Your task to perform on an android device: turn off smart reply in the gmail app Image 0: 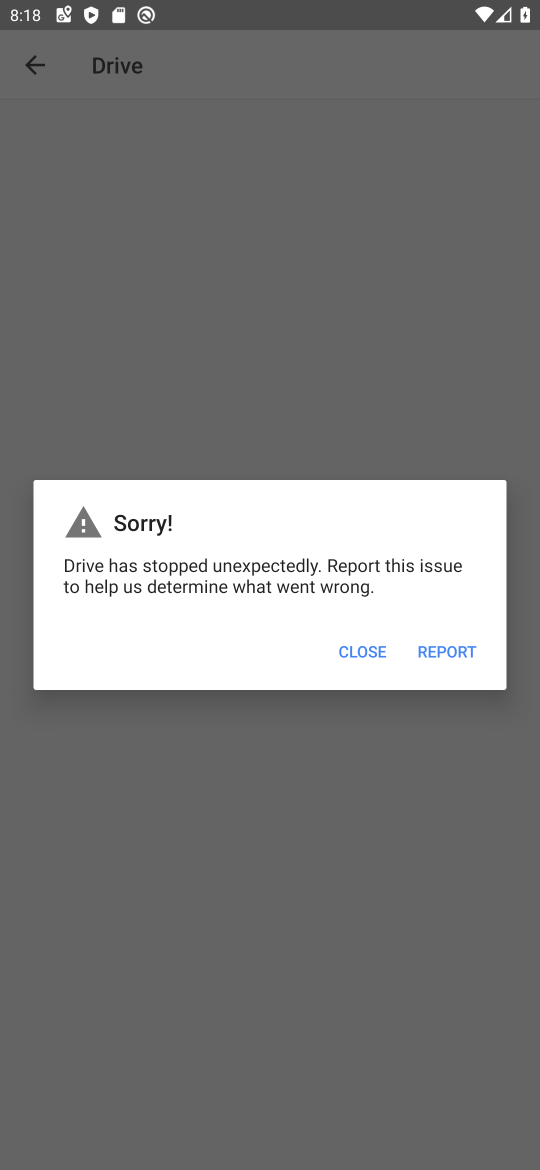
Step 0: press home button
Your task to perform on an android device: turn off smart reply in the gmail app Image 1: 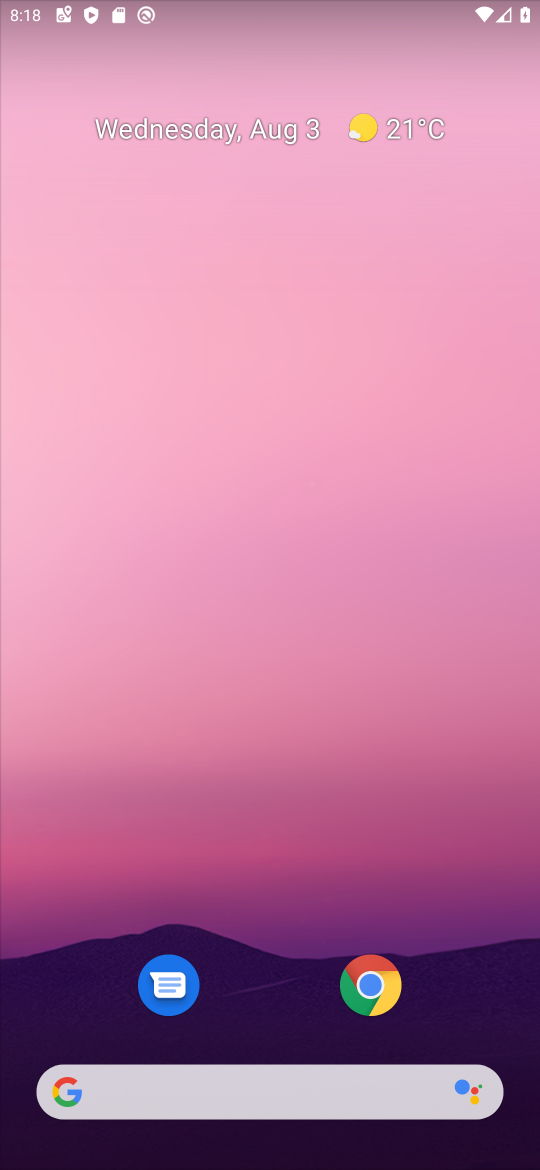
Step 1: drag from (270, 970) to (235, 269)
Your task to perform on an android device: turn off smart reply in the gmail app Image 2: 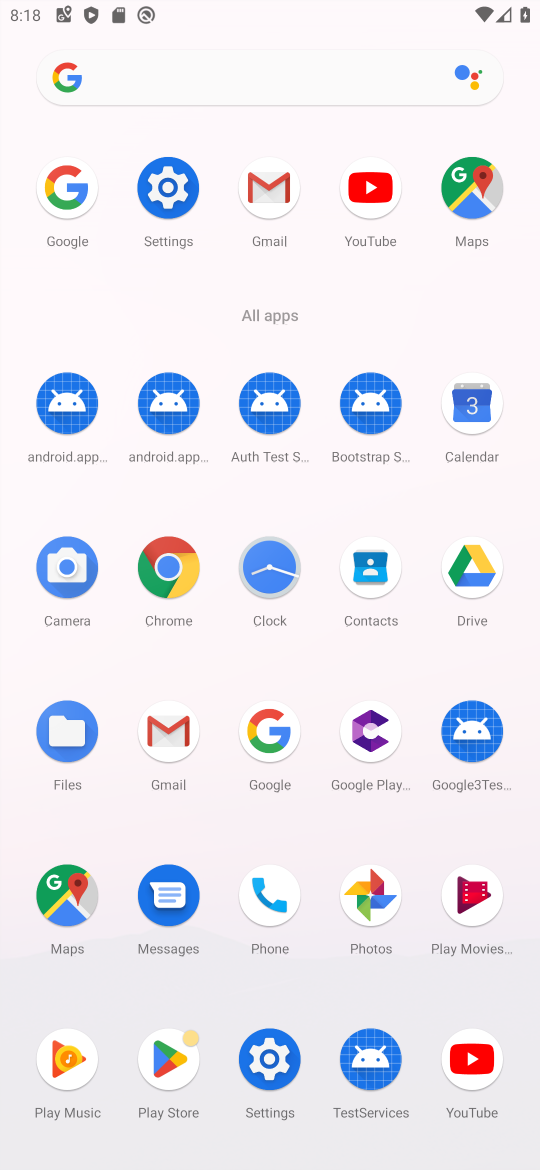
Step 2: click (263, 180)
Your task to perform on an android device: turn off smart reply in the gmail app Image 3: 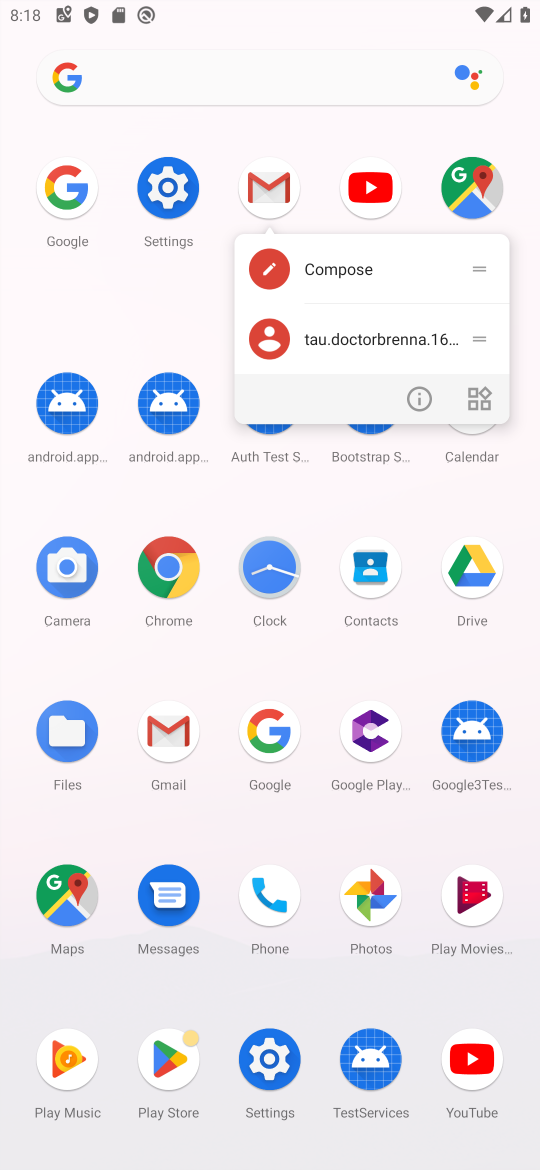
Step 3: click (275, 176)
Your task to perform on an android device: turn off smart reply in the gmail app Image 4: 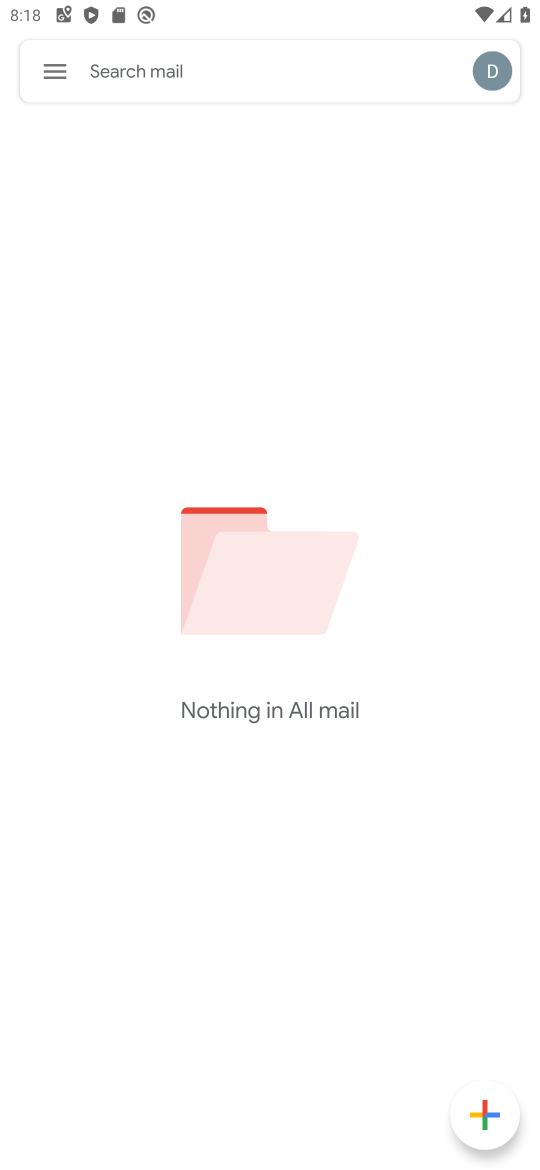
Step 4: click (57, 81)
Your task to perform on an android device: turn off smart reply in the gmail app Image 5: 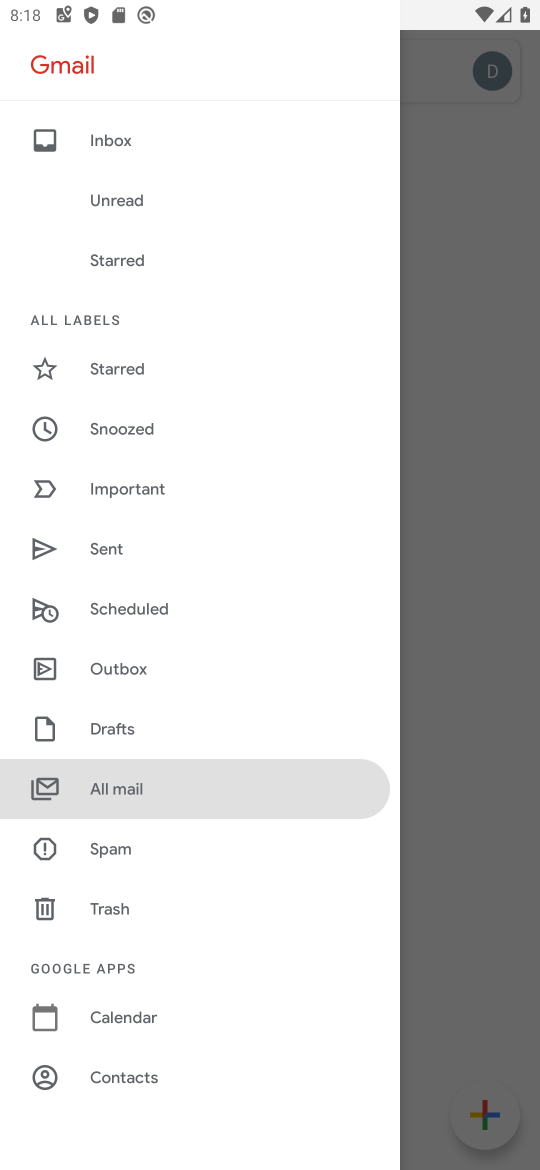
Step 5: drag from (151, 1050) to (246, 569)
Your task to perform on an android device: turn off smart reply in the gmail app Image 6: 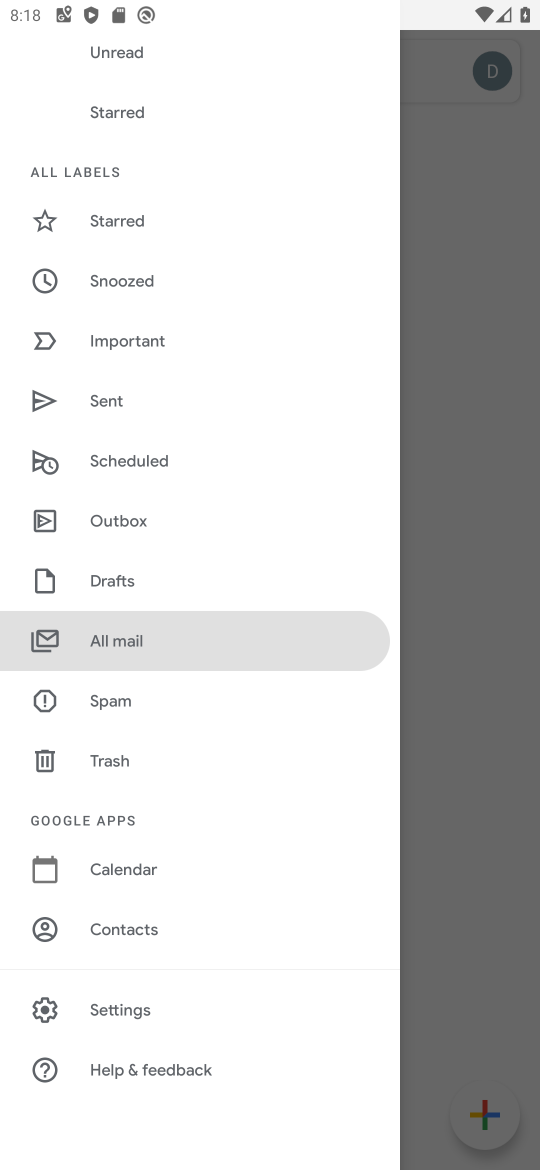
Step 6: click (130, 1017)
Your task to perform on an android device: turn off smart reply in the gmail app Image 7: 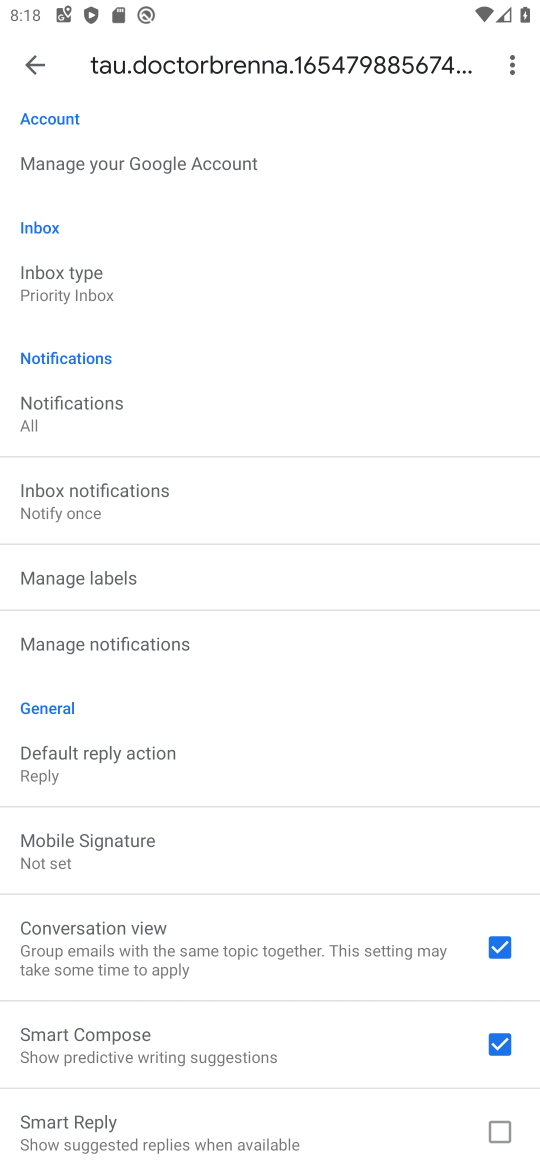
Step 7: task complete